Your task to perform on an android device: Open Google Maps and go to "Timeline" Image 0: 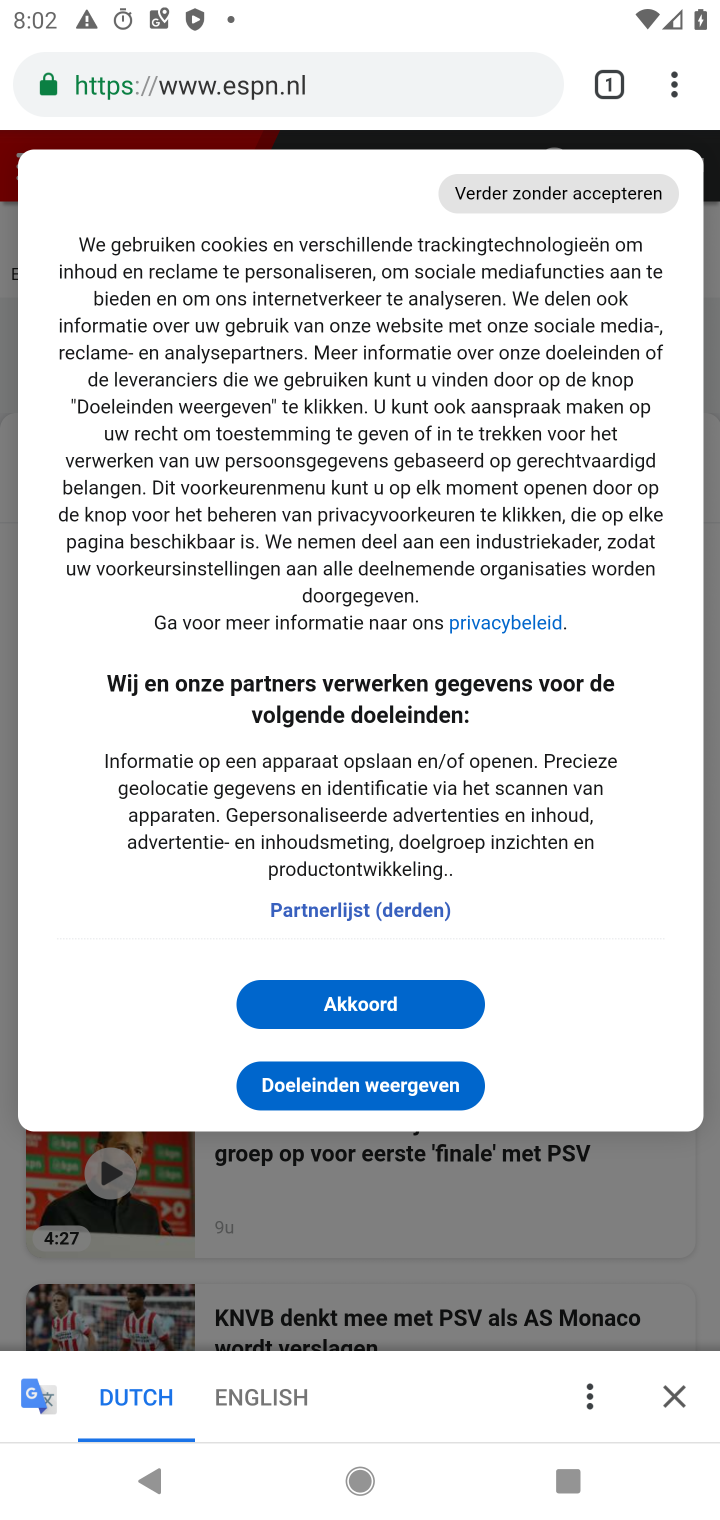
Step 0: press home button
Your task to perform on an android device: Open Google Maps and go to "Timeline" Image 1: 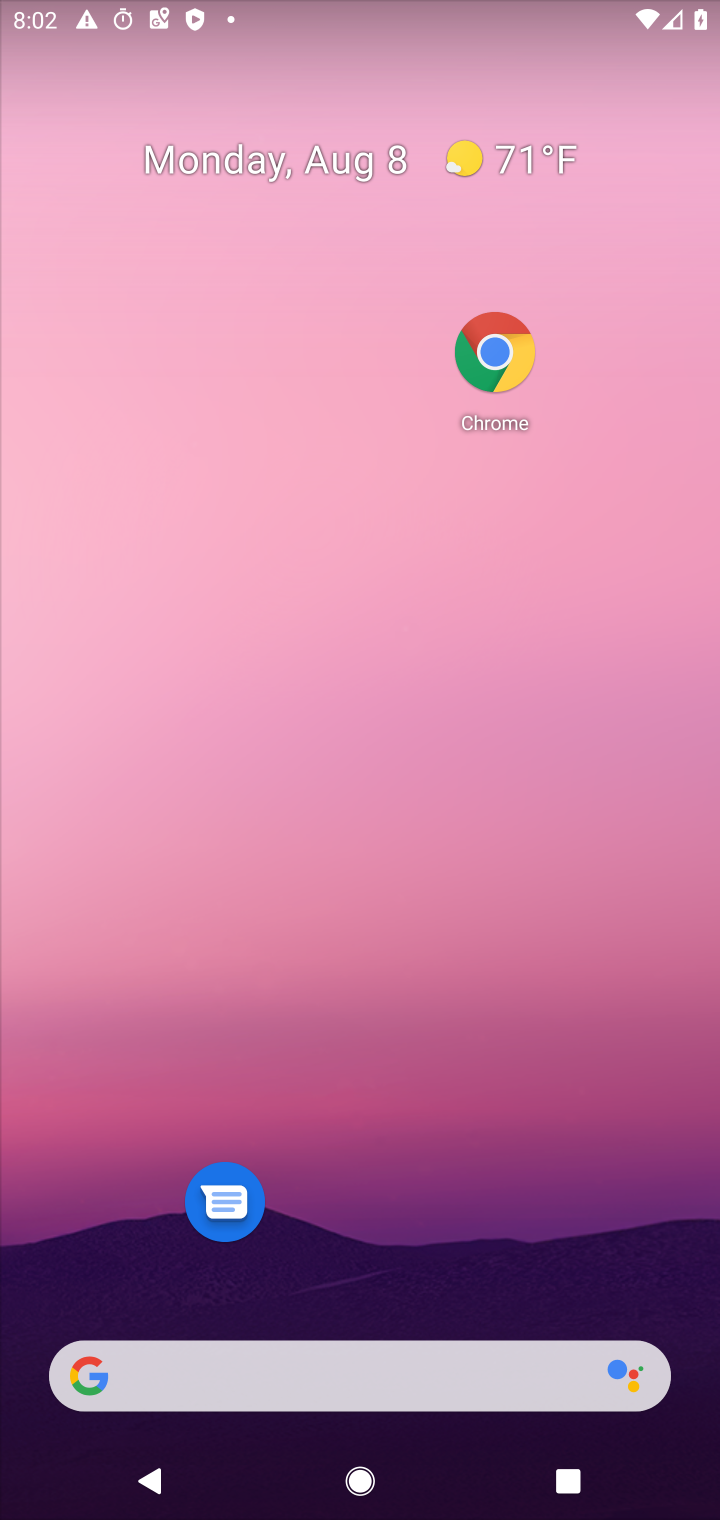
Step 1: drag from (349, 1140) to (142, 18)
Your task to perform on an android device: Open Google Maps and go to "Timeline" Image 2: 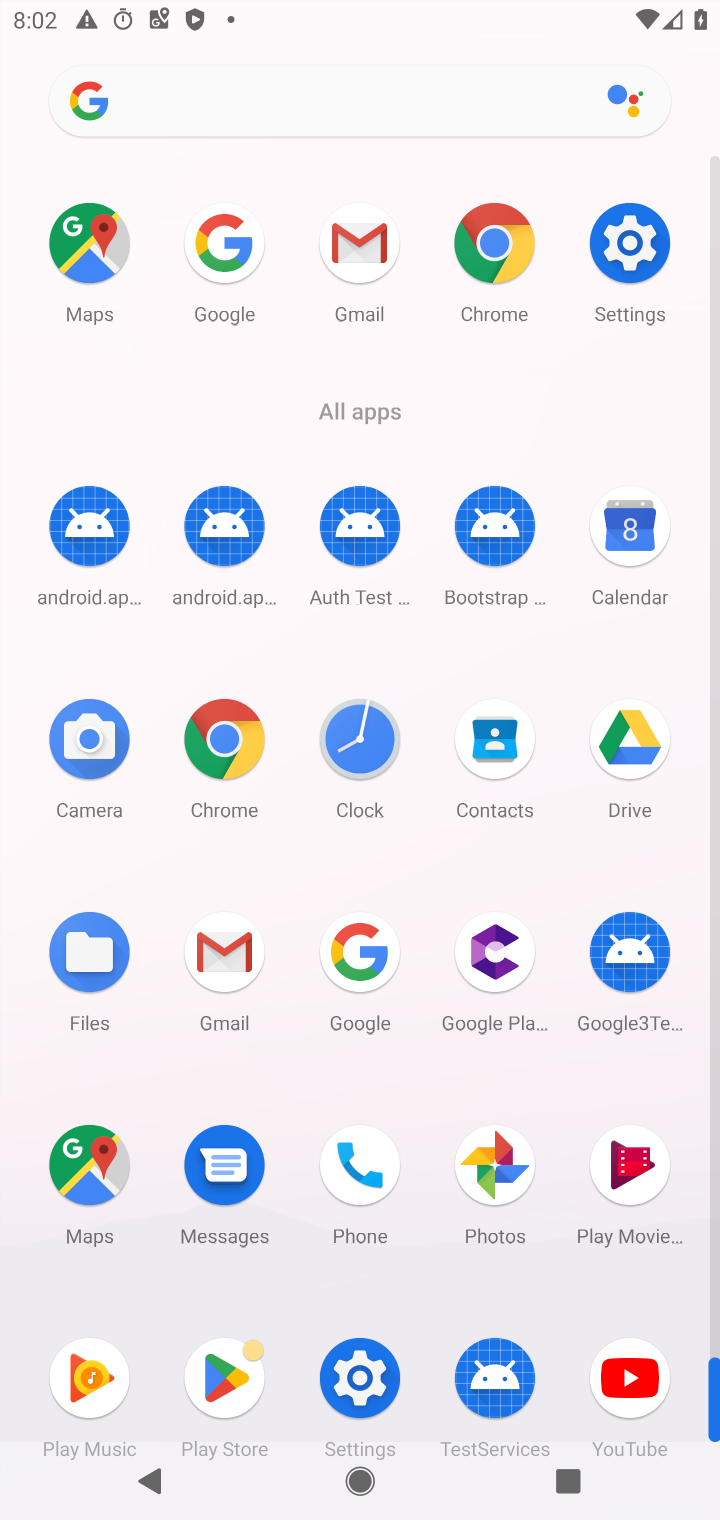
Step 2: click (87, 1204)
Your task to perform on an android device: Open Google Maps and go to "Timeline" Image 3: 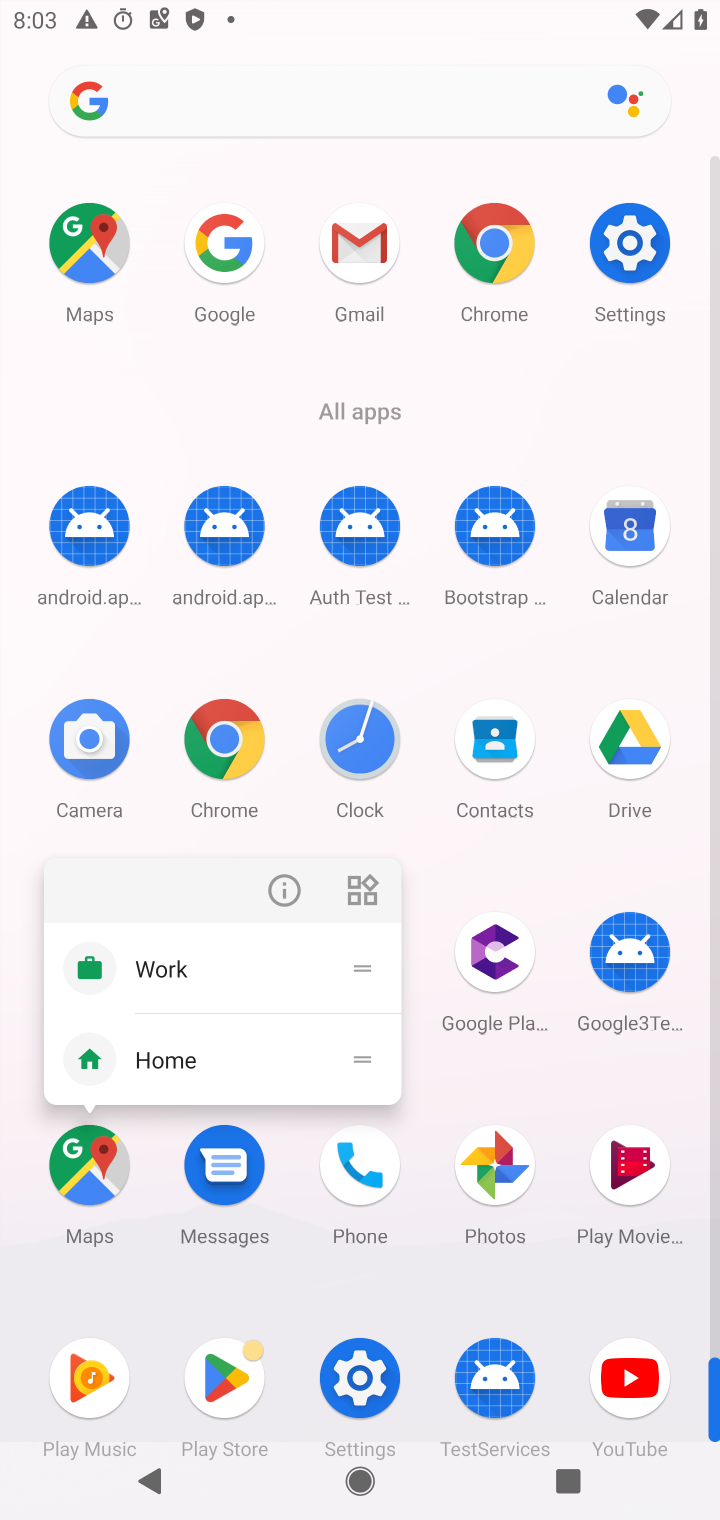
Step 3: click (61, 1199)
Your task to perform on an android device: Open Google Maps and go to "Timeline" Image 4: 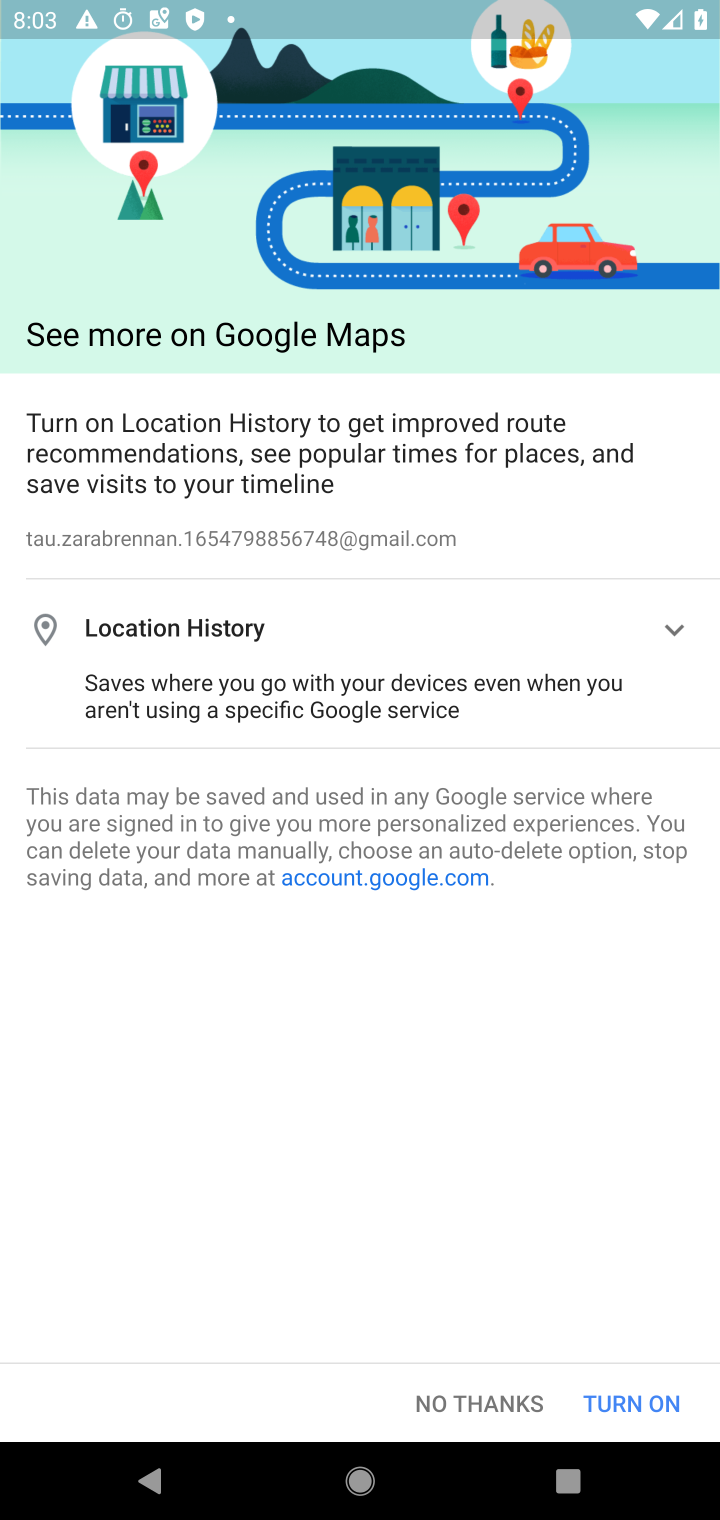
Step 4: click (639, 1415)
Your task to perform on an android device: Open Google Maps and go to "Timeline" Image 5: 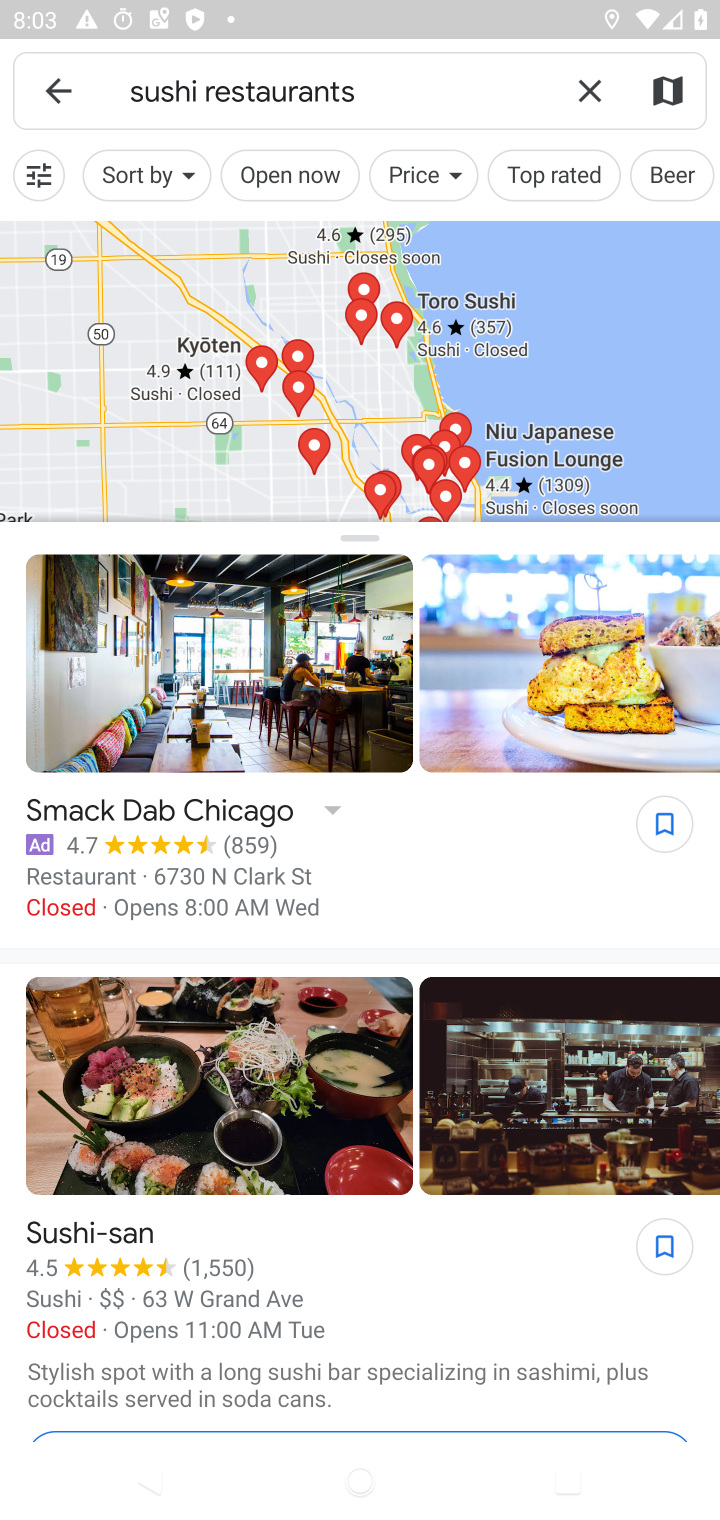
Step 5: click (46, 113)
Your task to perform on an android device: Open Google Maps and go to "Timeline" Image 6: 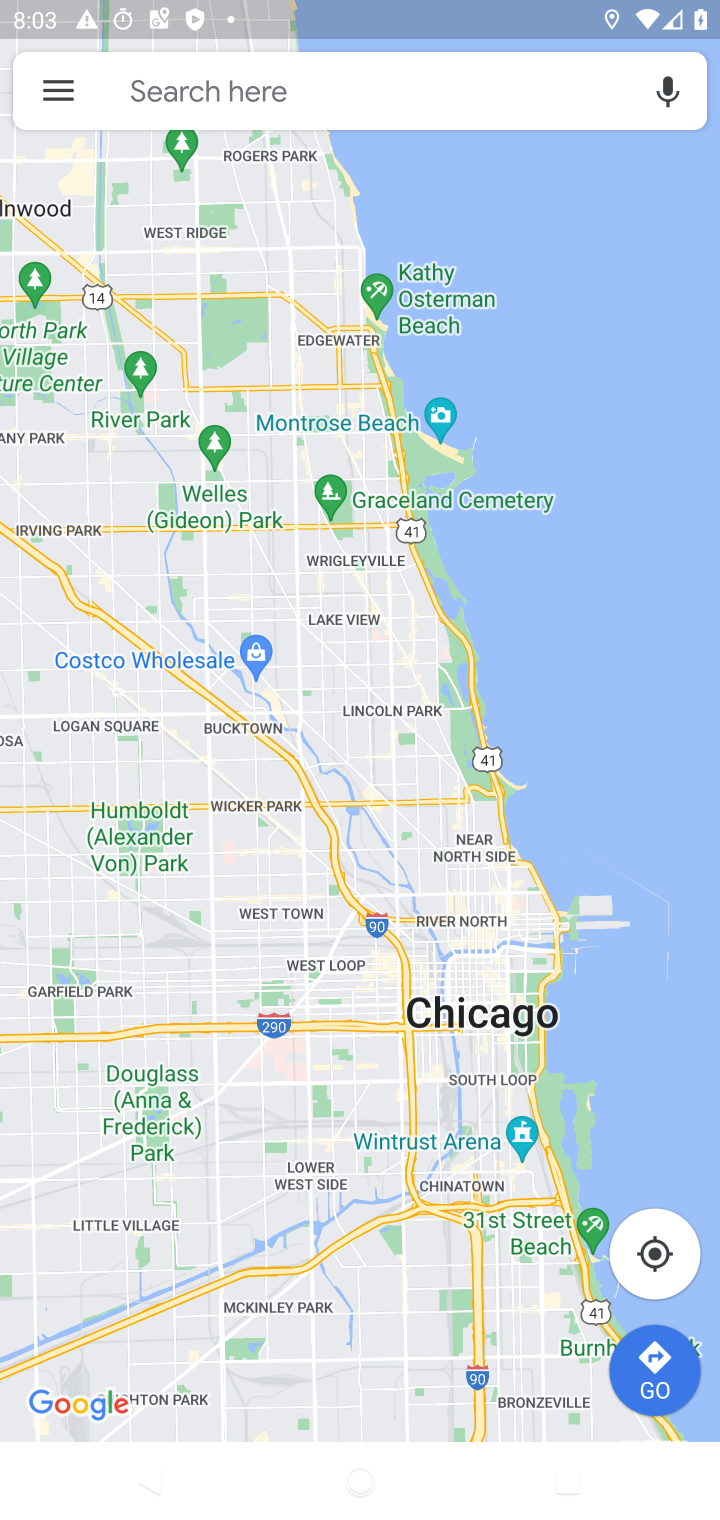
Step 6: click (64, 80)
Your task to perform on an android device: Open Google Maps and go to "Timeline" Image 7: 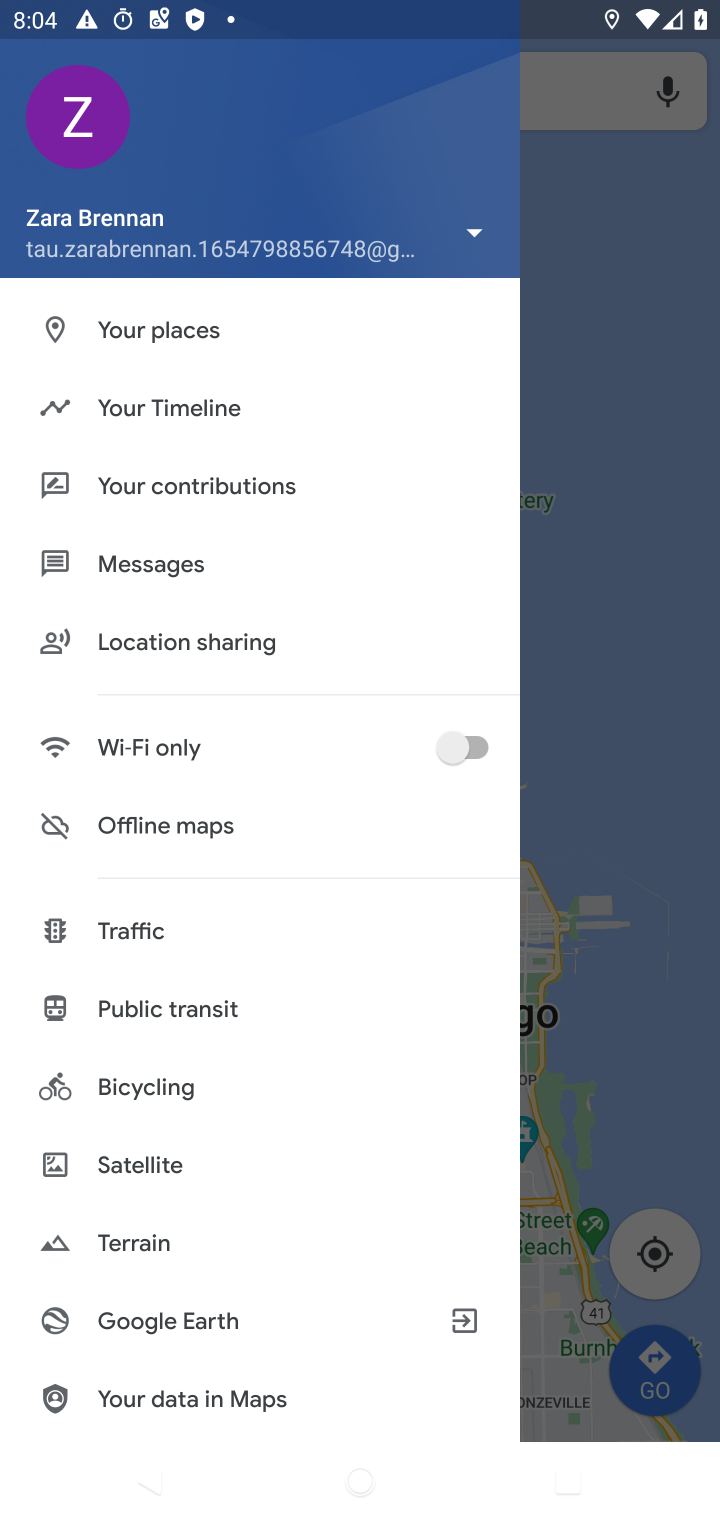
Step 7: click (220, 414)
Your task to perform on an android device: Open Google Maps and go to "Timeline" Image 8: 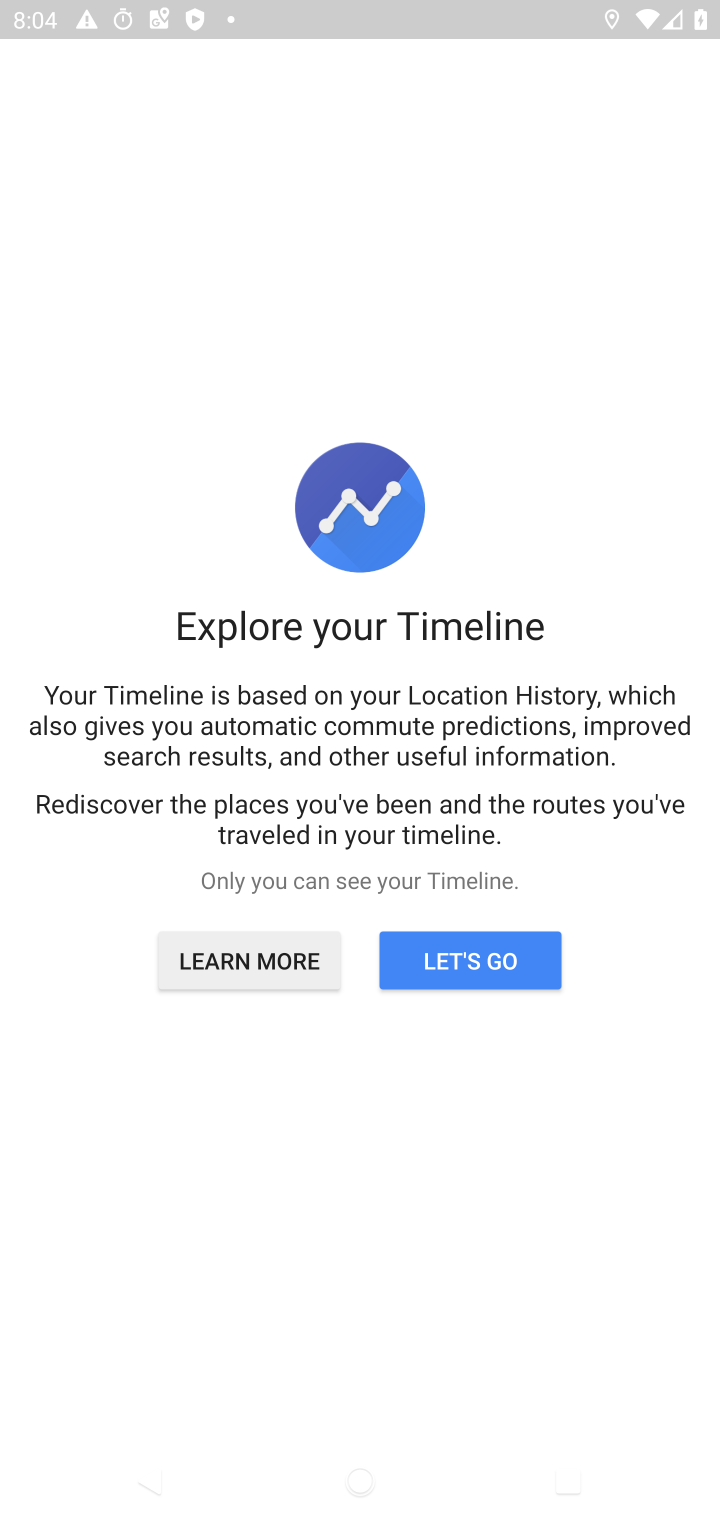
Step 8: click (479, 958)
Your task to perform on an android device: Open Google Maps and go to "Timeline" Image 9: 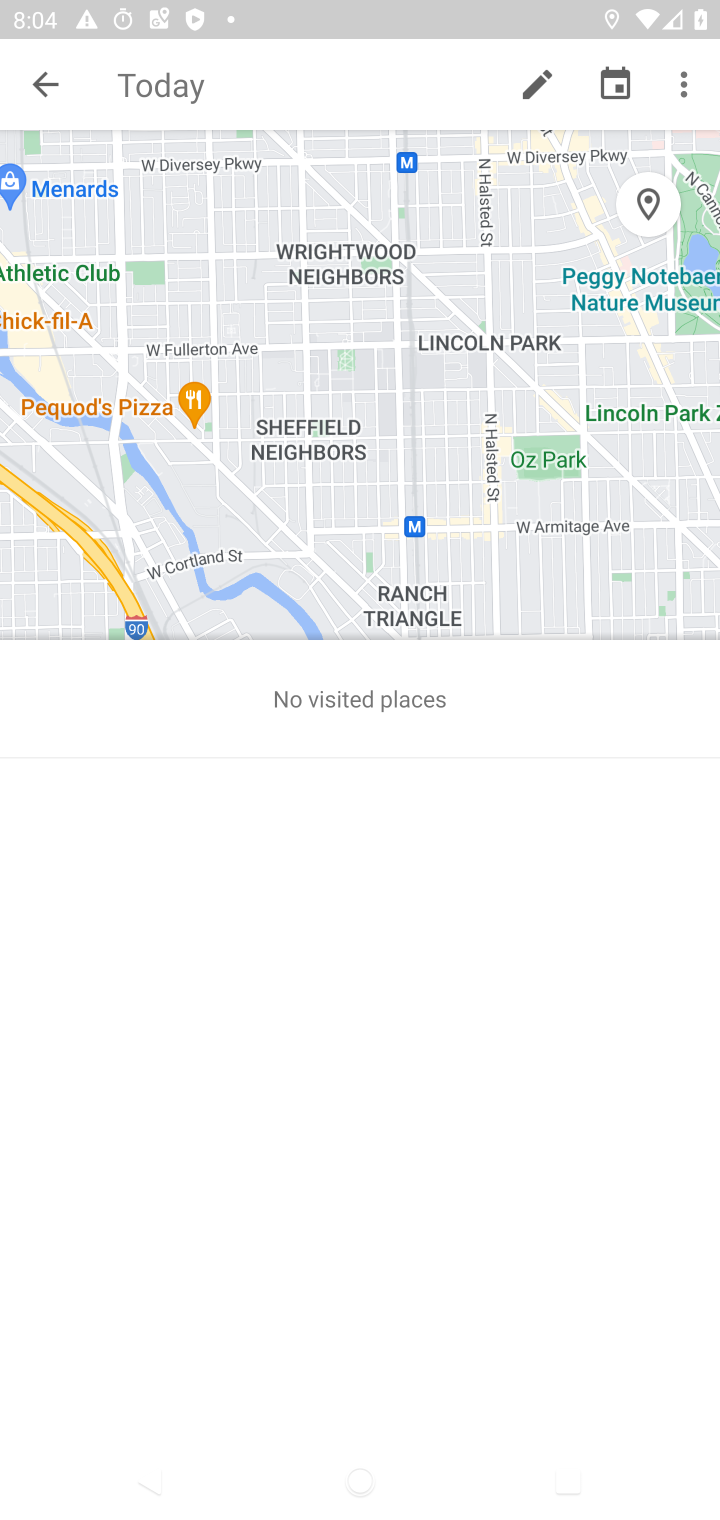
Step 9: task complete